Your task to perform on an android device: Open notification settings Image 0: 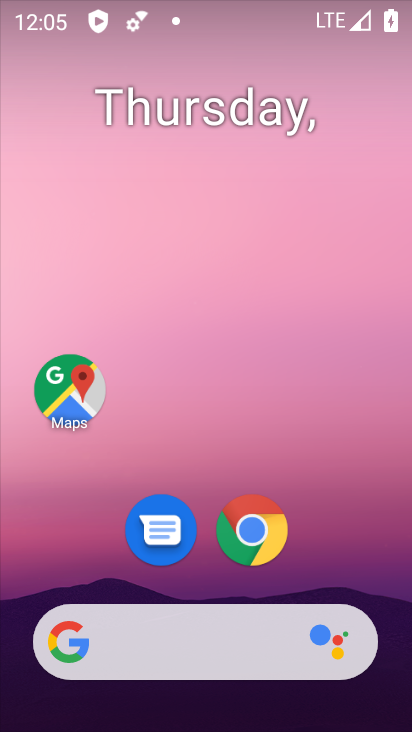
Step 0: drag from (193, 632) to (228, 159)
Your task to perform on an android device: Open notification settings Image 1: 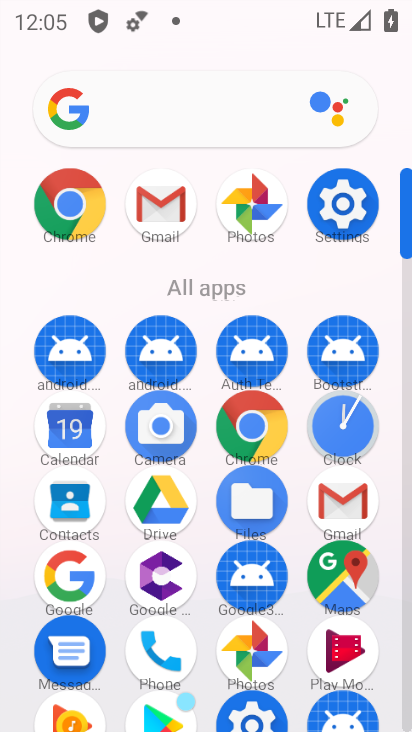
Step 1: click (355, 202)
Your task to perform on an android device: Open notification settings Image 2: 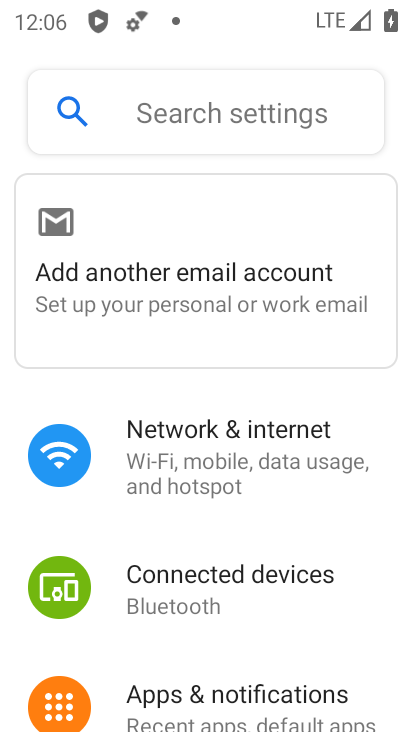
Step 2: click (207, 692)
Your task to perform on an android device: Open notification settings Image 3: 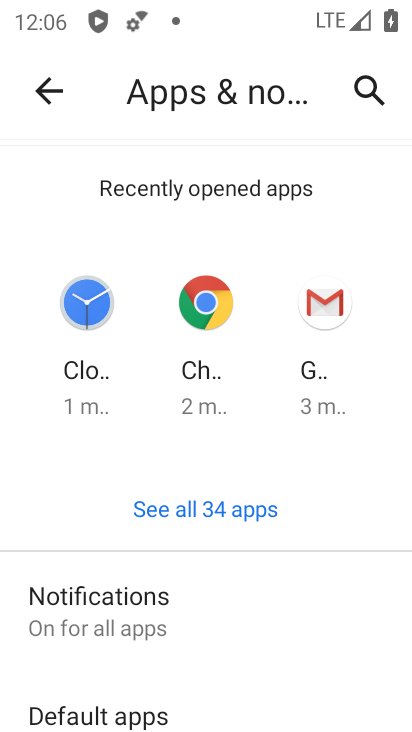
Step 3: task complete